Your task to perform on an android device: Open calendar and show me the third week of next month Image 0: 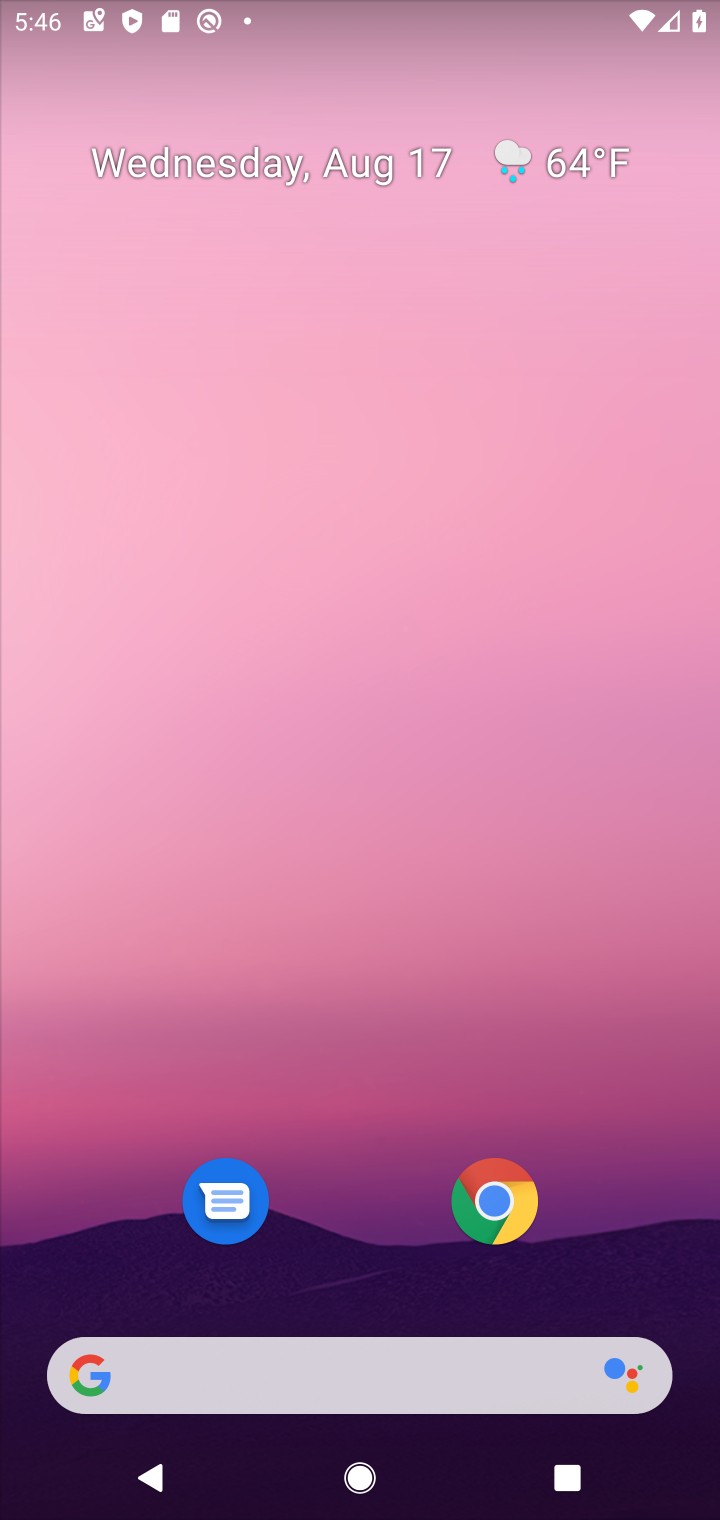
Step 0: press home button
Your task to perform on an android device: Open calendar and show me the third week of next month Image 1: 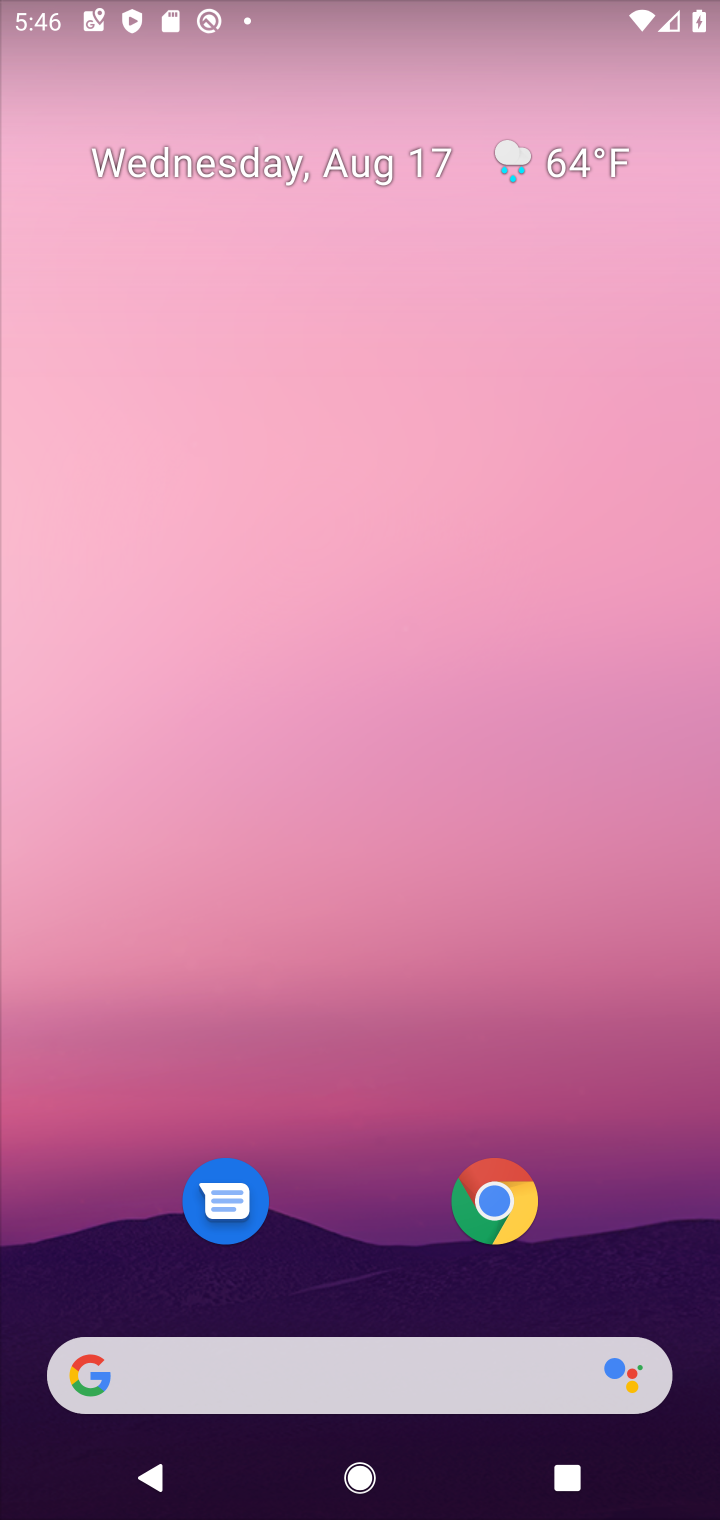
Step 1: drag from (351, 1246) to (318, 81)
Your task to perform on an android device: Open calendar and show me the third week of next month Image 2: 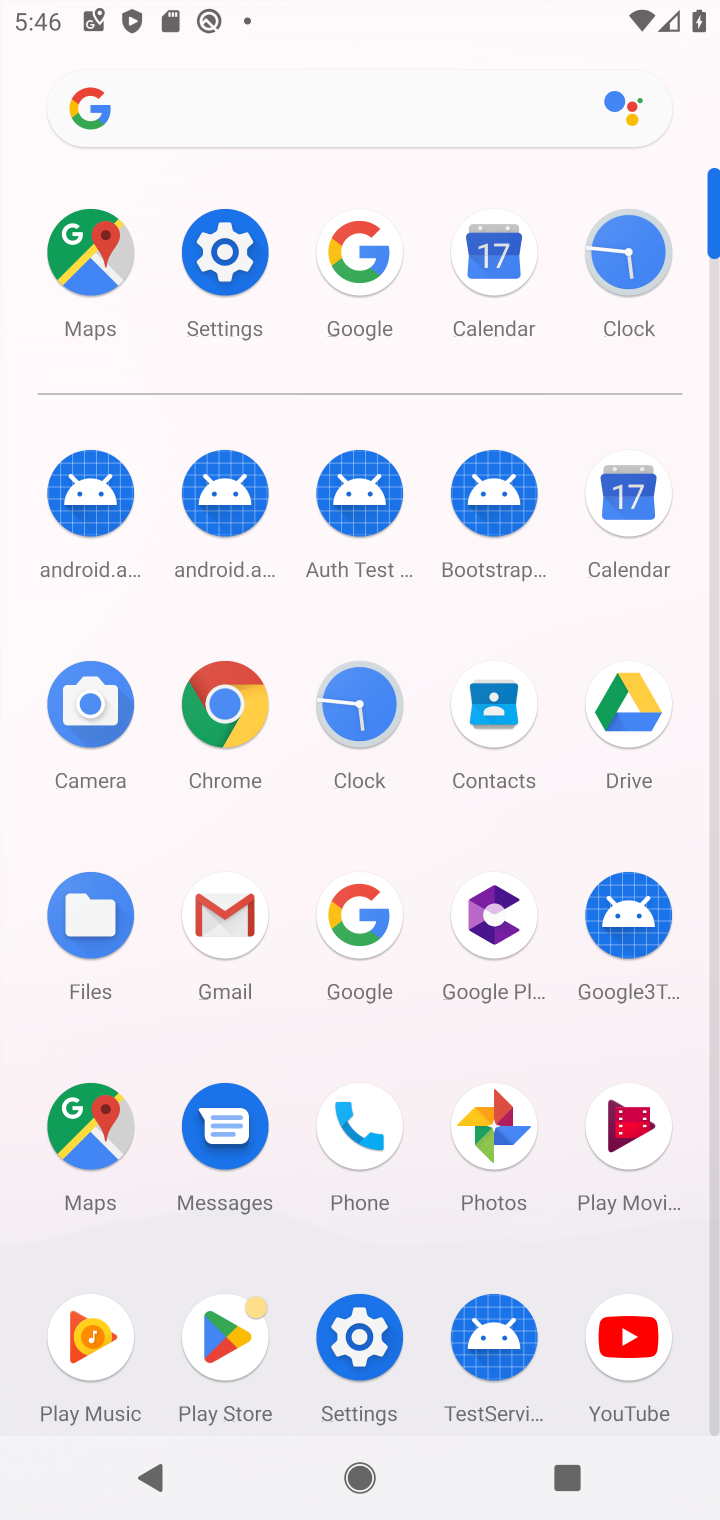
Step 2: click (515, 253)
Your task to perform on an android device: Open calendar and show me the third week of next month Image 3: 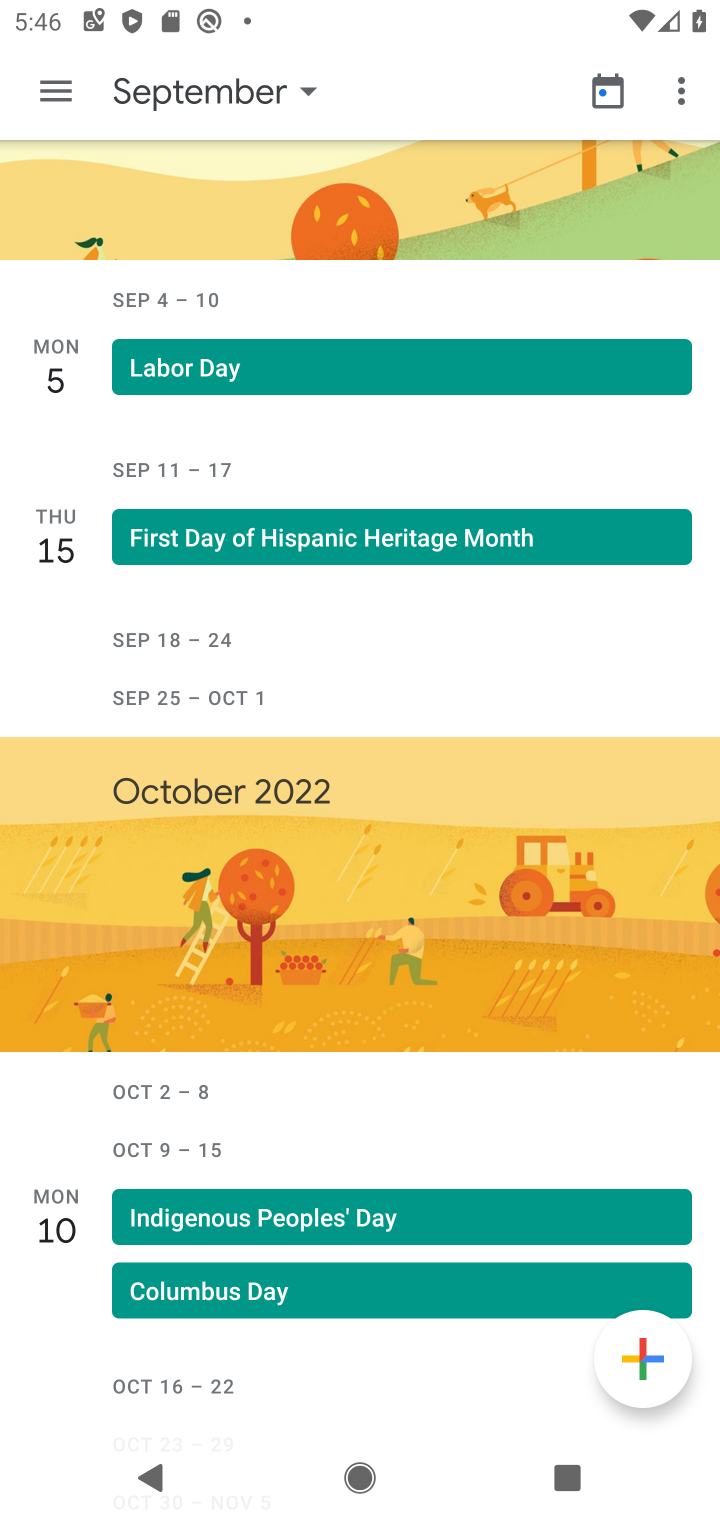
Step 3: click (55, 90)
Your task to perform on an android device: Open calendar and show me the third week of next month Image 4: 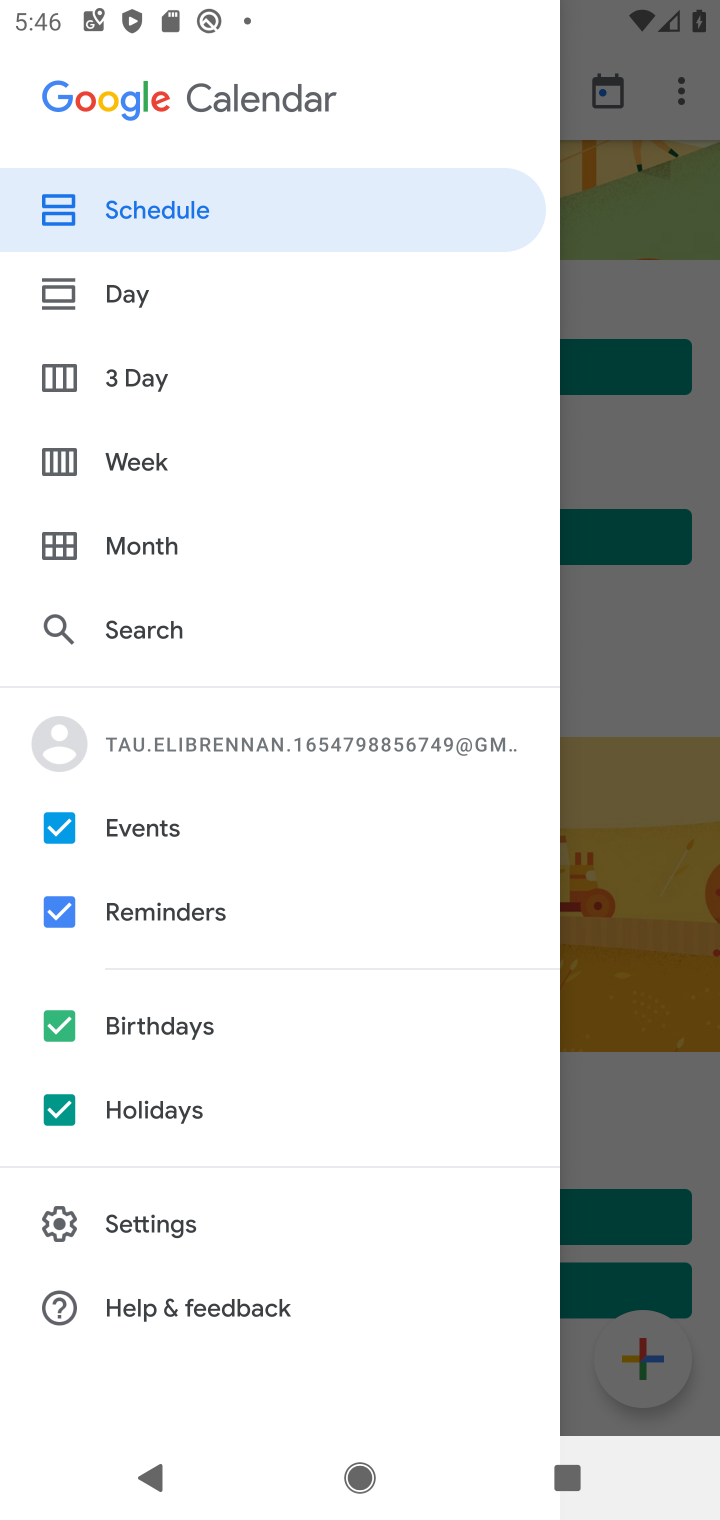
Step 4: click (153, 546)
Your task to perform on an android device: Open calendar and show me the third week of next month Image 5: 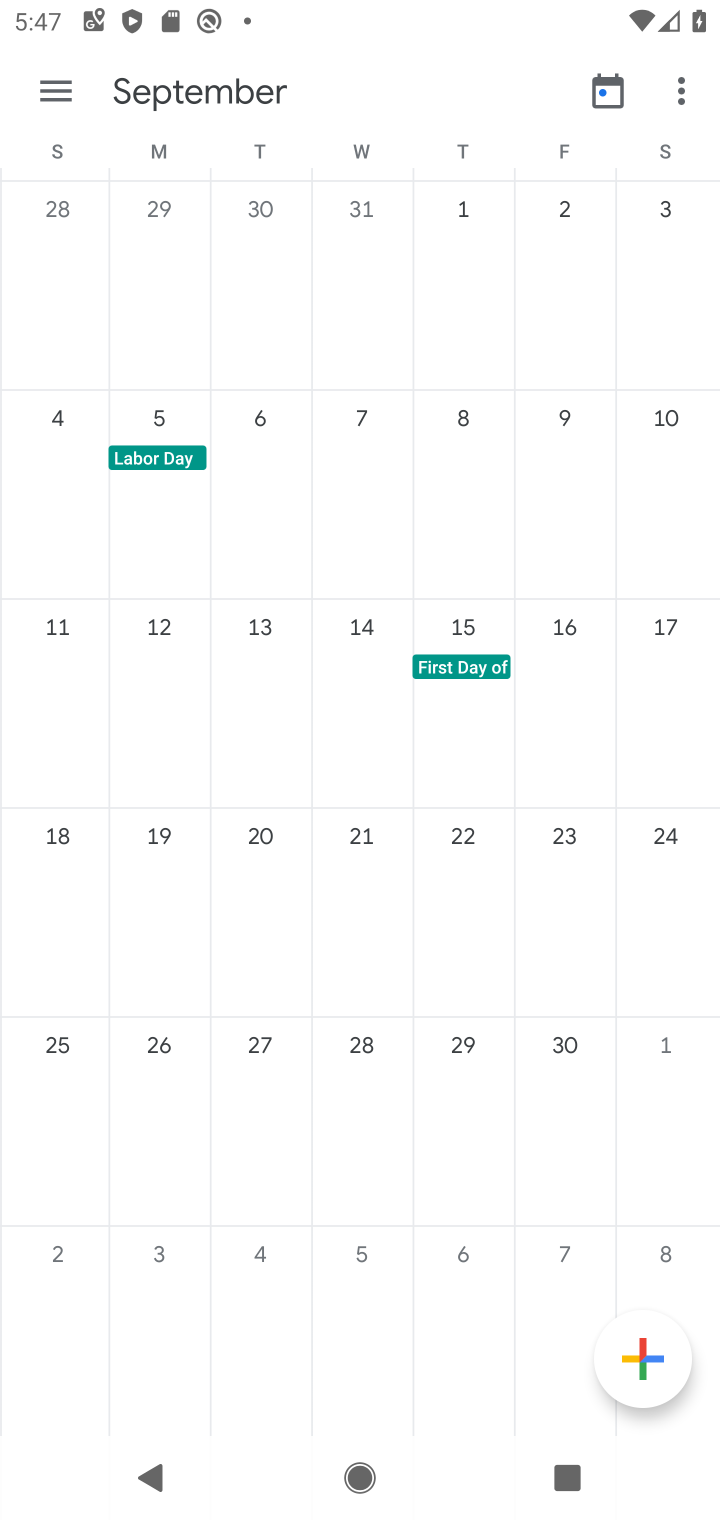
Step 5: task complete